Your task to perform on an android device: Empty the shopping cart on amazon.com. Search for usb-c to usb-b on amazon.com, select the first entry, and add it to the cart. Image 0: 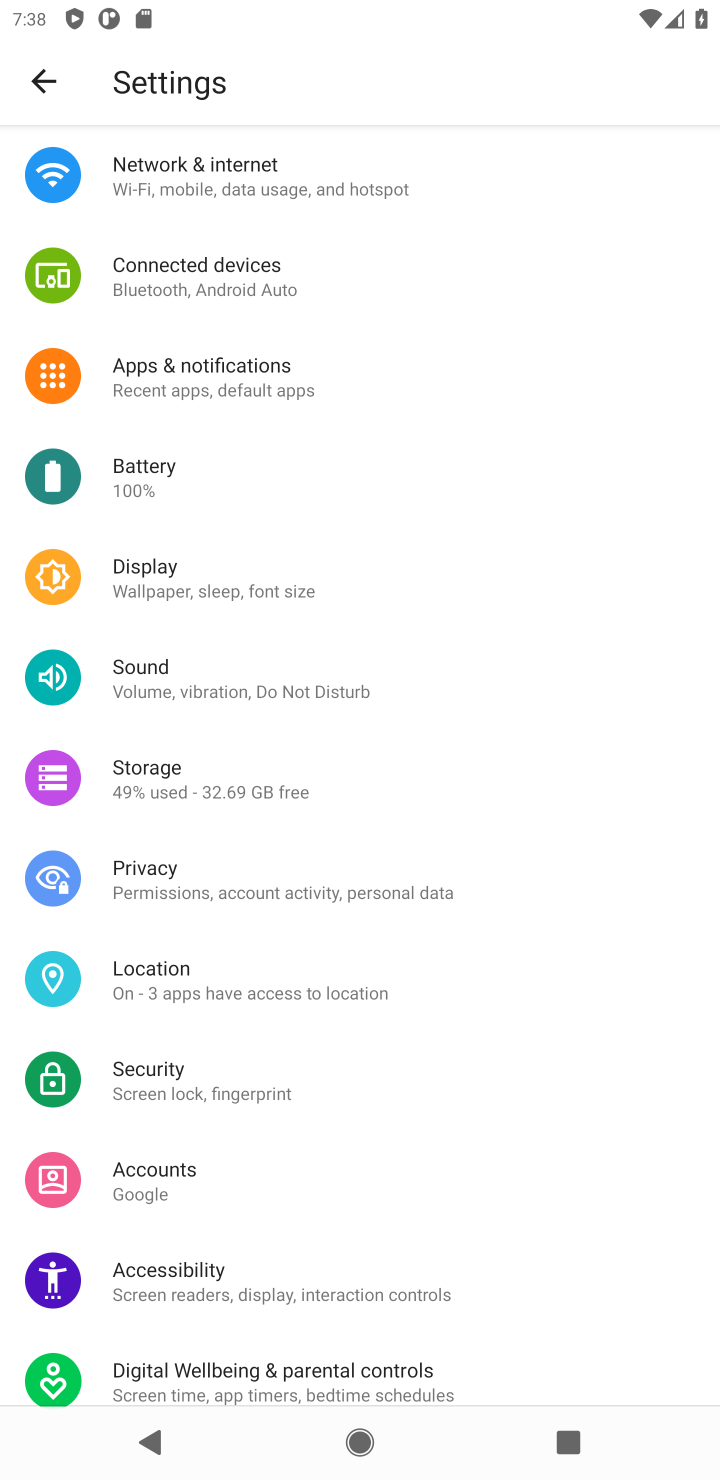
Step 0: press home button
Your task to perform on an android device: Empty the shopping cart on amazon.com. Search for usb-c to usb-b on amazon.com, select the first entry, and add it to the cart. Image 1: 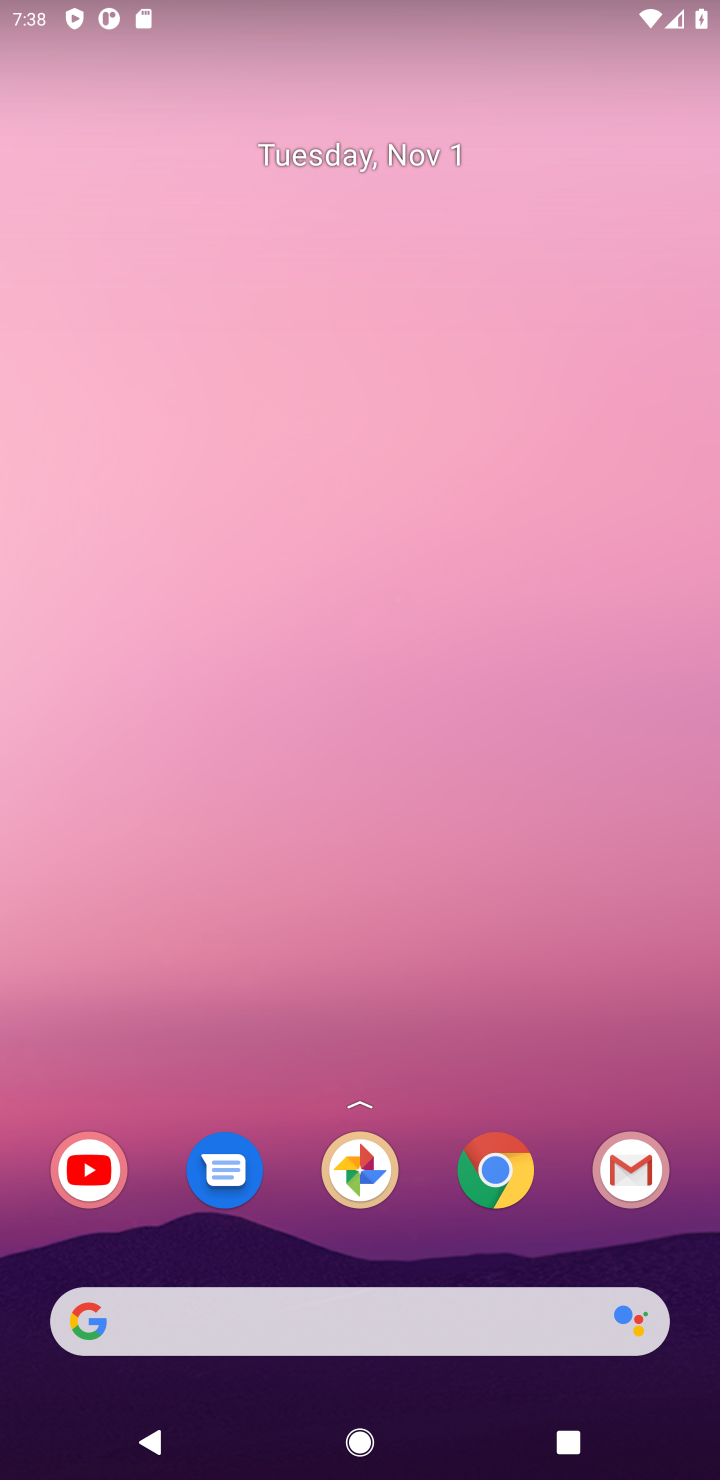
Step 1: click (511, 1171)
Your task to perform on an android device: Empty the shopping cart on amazon.com. Search for usb-c to usb-b on amazon.com, select the first entry, and add it to the cart. Image 2: 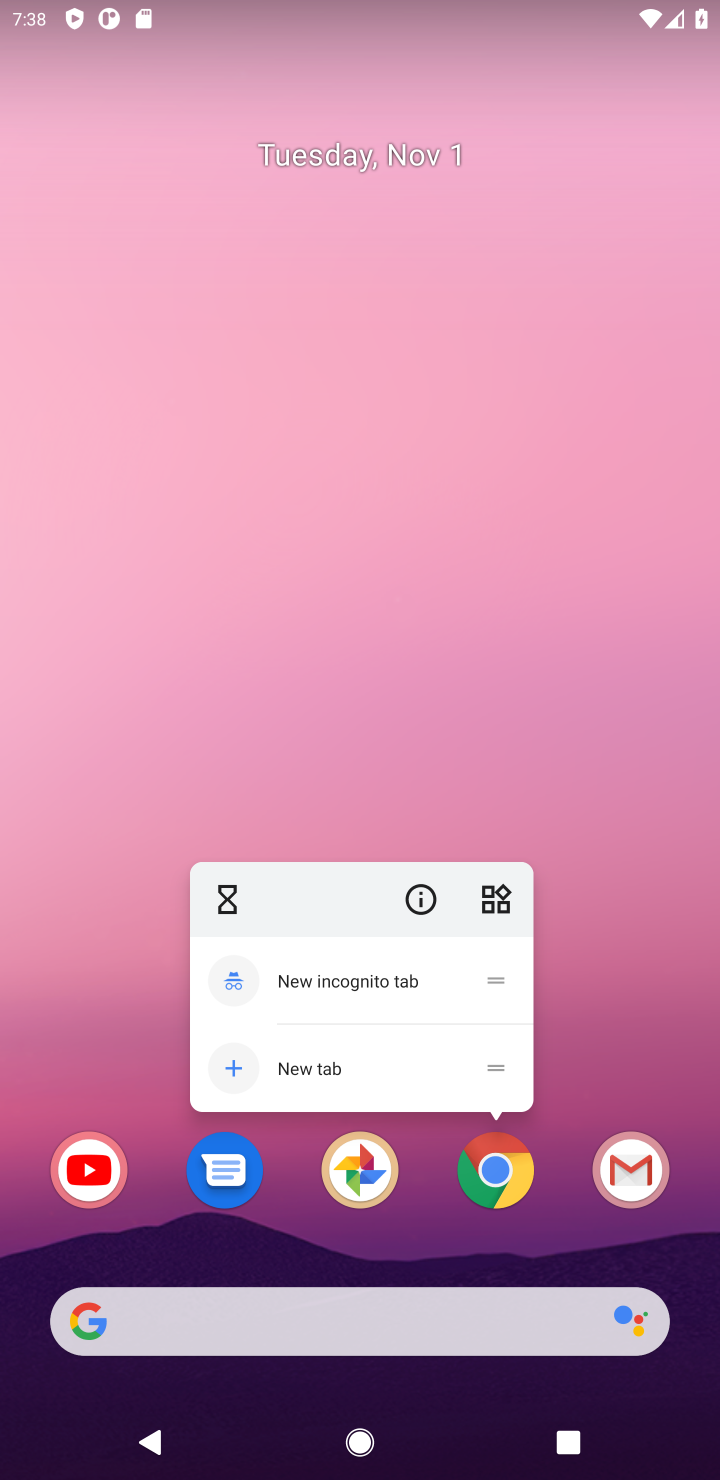
Step 2: click (515, 1180)
Your task to perform on an android device: Empty the shopping cart on amazon.com. Search for usb-c to usb-b on amazon.com, select the first entry, and add it to the cart. Image 3: 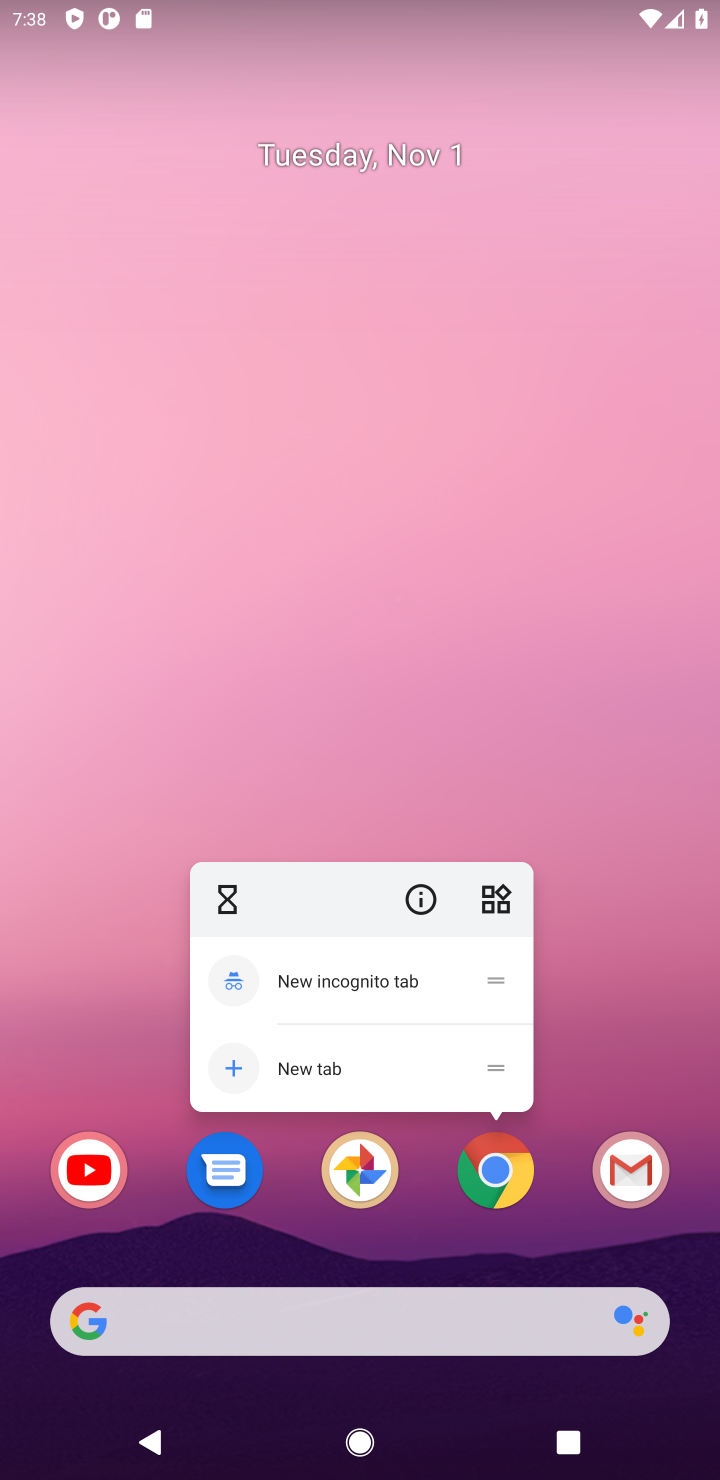
Step 3: click (504, 1206)
Your task to perform on an android device: Empty the shopping cart on amazon.com. Search for usb-c to usb-b on amazon.com, select the first entry, and add it to the cart. Image 4: 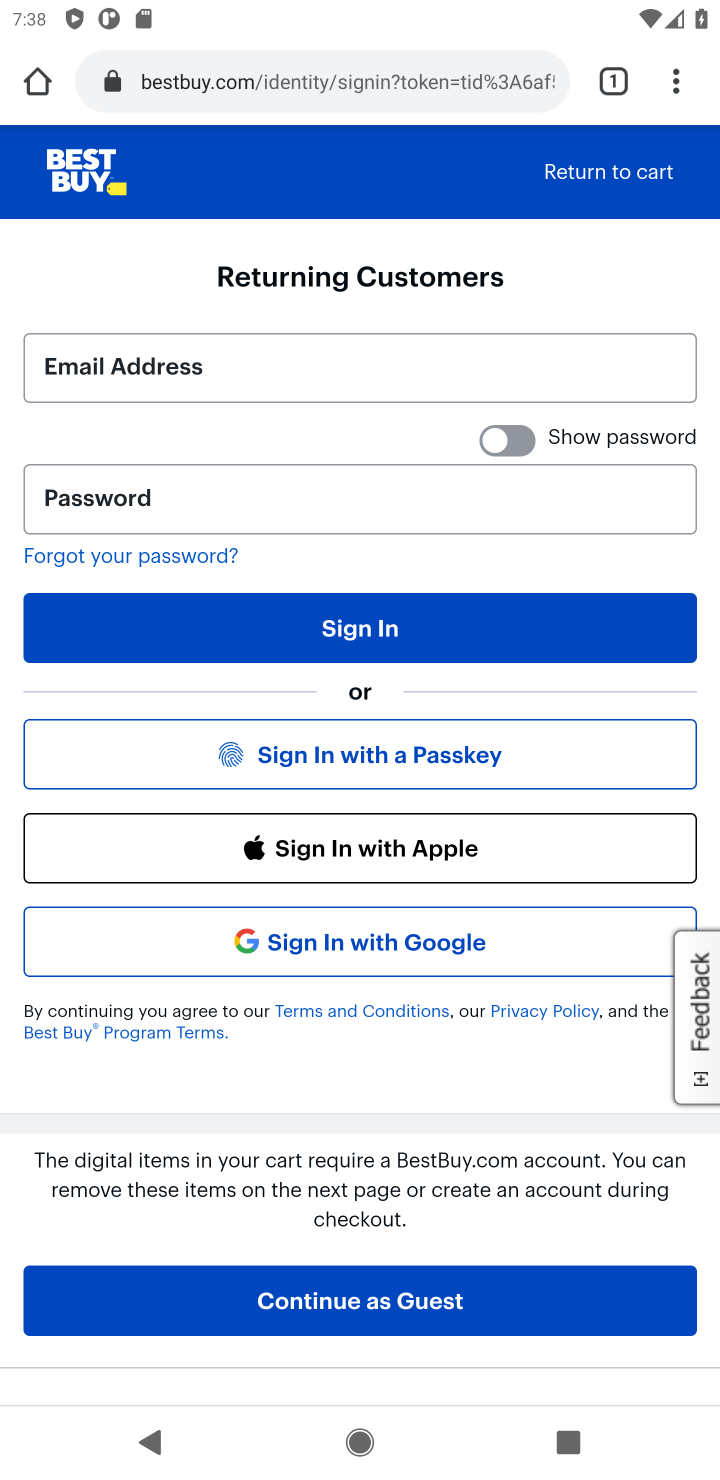
Step 4: click (317, 87)
Your task to perform on an android device: Empty the shopping cart on amazon.com. Search for usb-c to usb-b on amazon.com, select the first entry, and add it to the cart. Image 5: 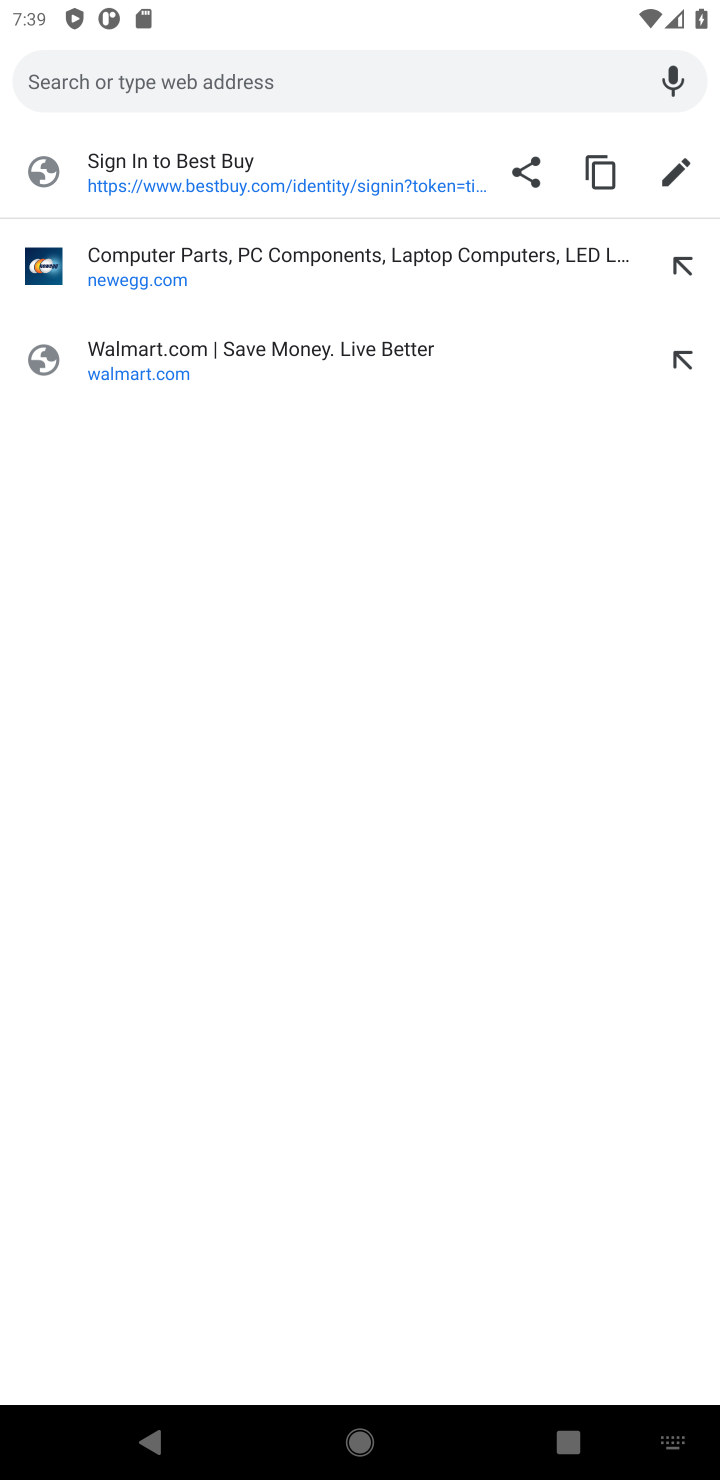
Step 5: type "amazon.com"
Your task to perform on an android device: Empty the shopping cart on amazon.com. Search for usb-c to usb-b on amazon.com, select the first entry, and add it to the cart. Image 6: 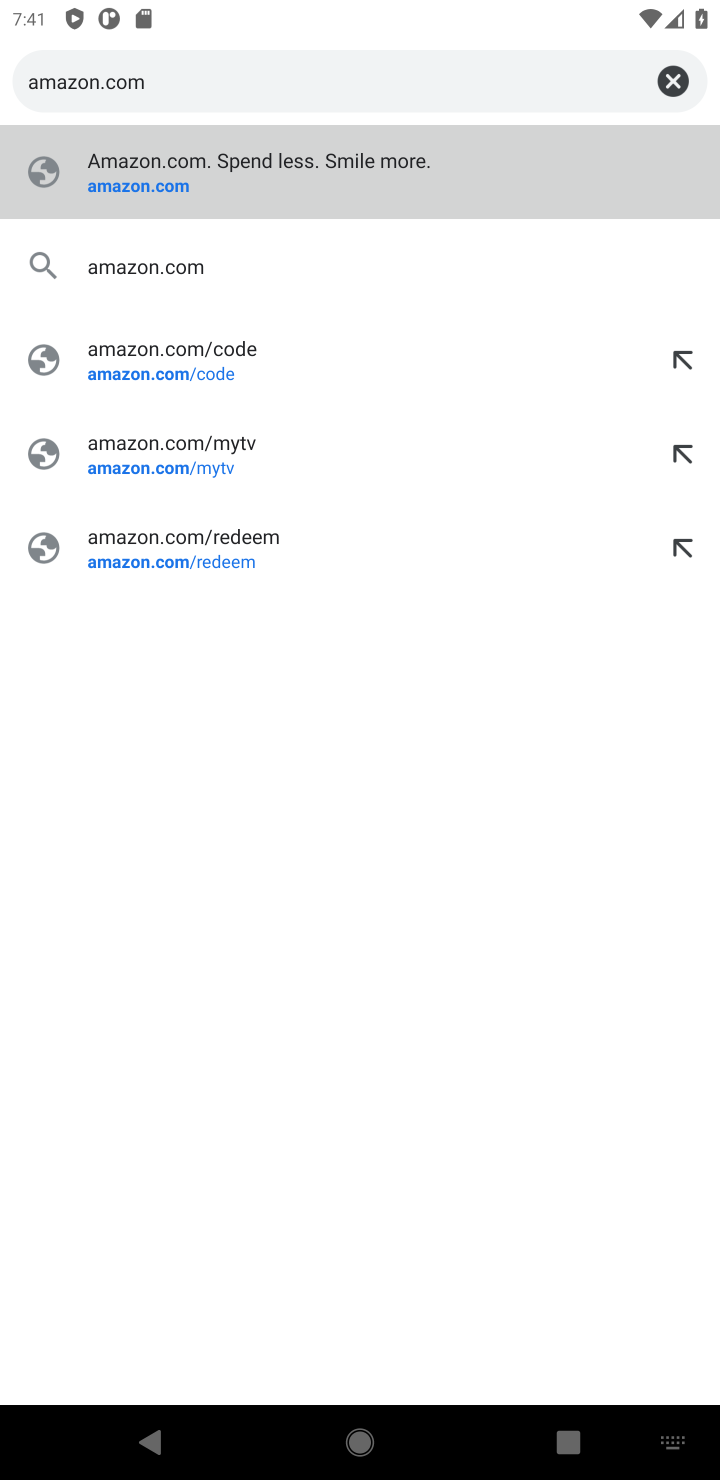
Step 6: press enter
Your task to perform on an android device: Empty the shopping cart on amazon.com. Search for usb-c to usb-b on amazon.com, select the first entry, and add it to the cart. Image 7: 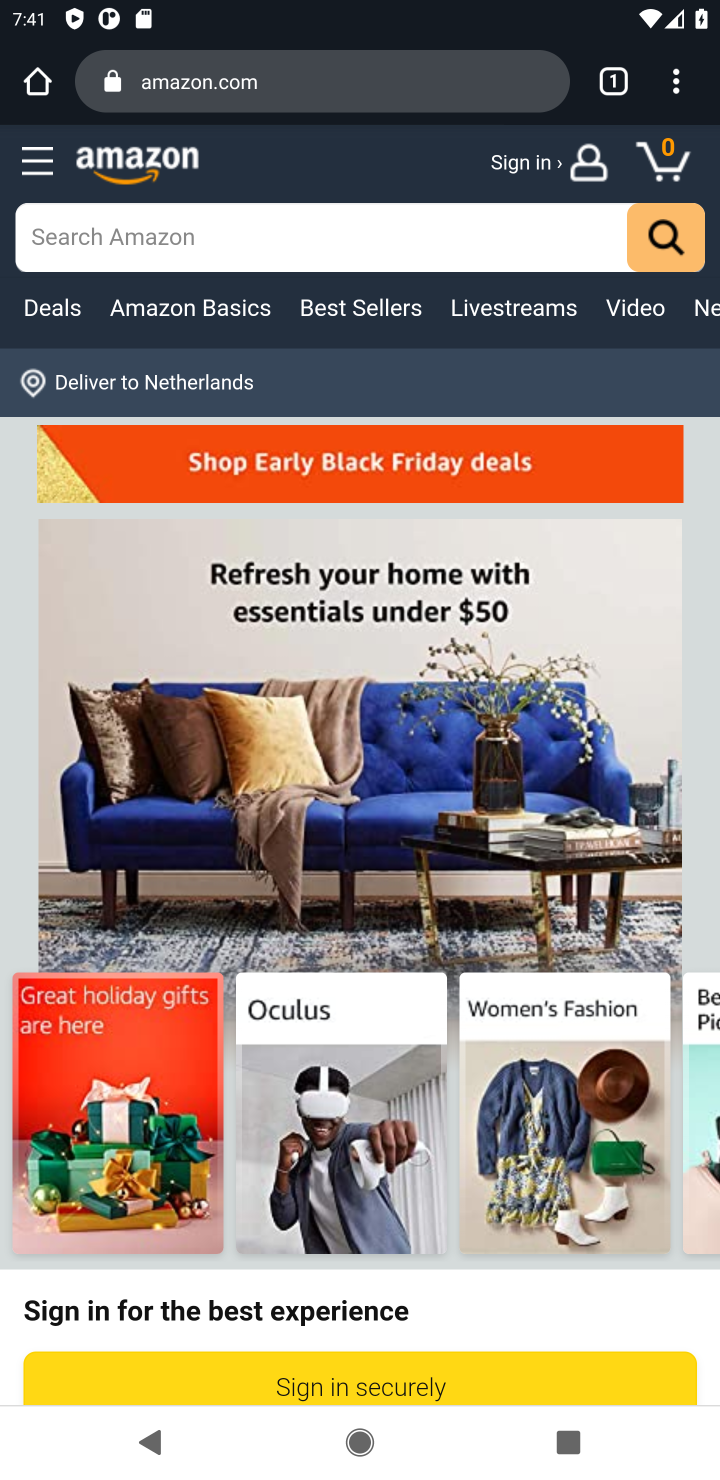
Step 7: click (668, 165)
Your task to perform on an android device: Empty the shopping cart on amazon.com. Search for usb-c to usb-b on amazon.com, select the first entry, and add it to the cart. Image 8: 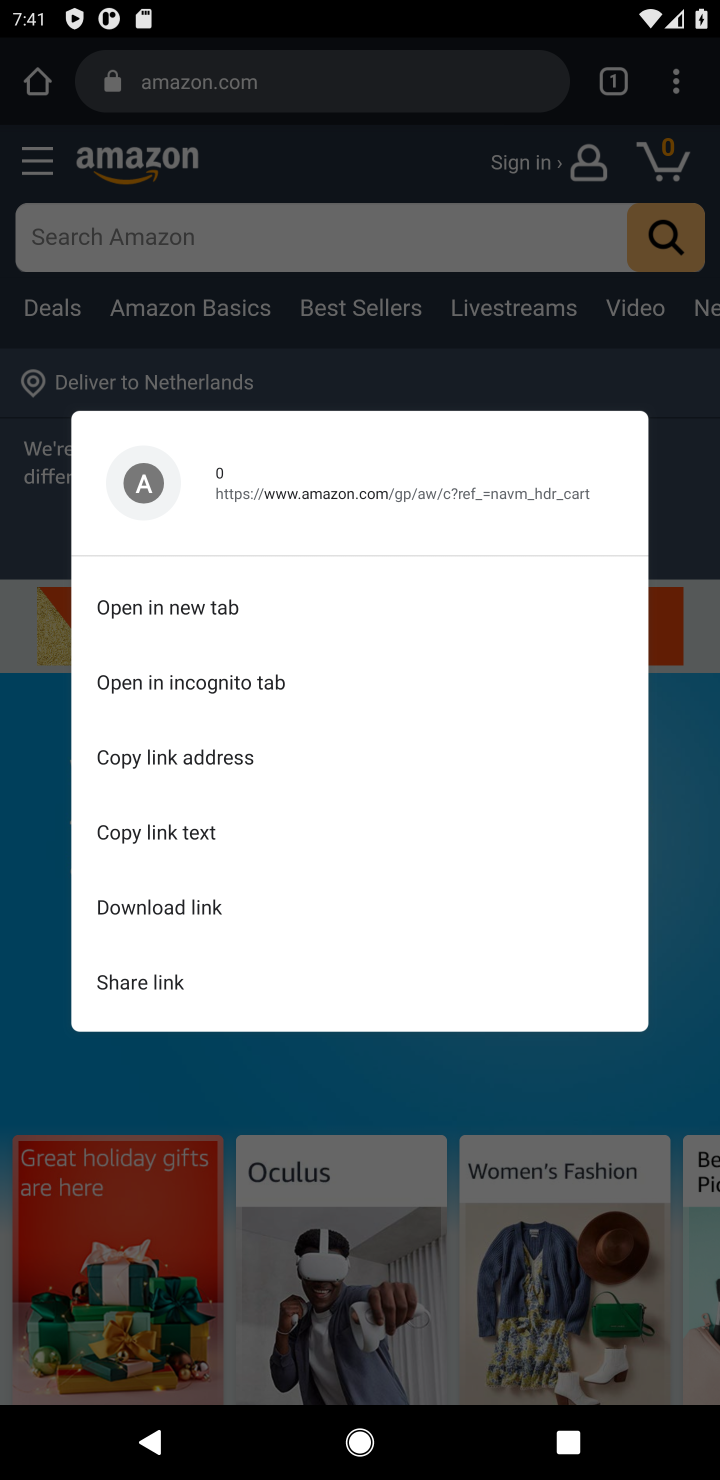
Step 8: click (476, 1080)
Your task to perform on an android device: Empty the shopping cart on amazon.com. Search for usb-c to usb-b on amazon.com, select the first entry, and add it to the cart. Image 9: 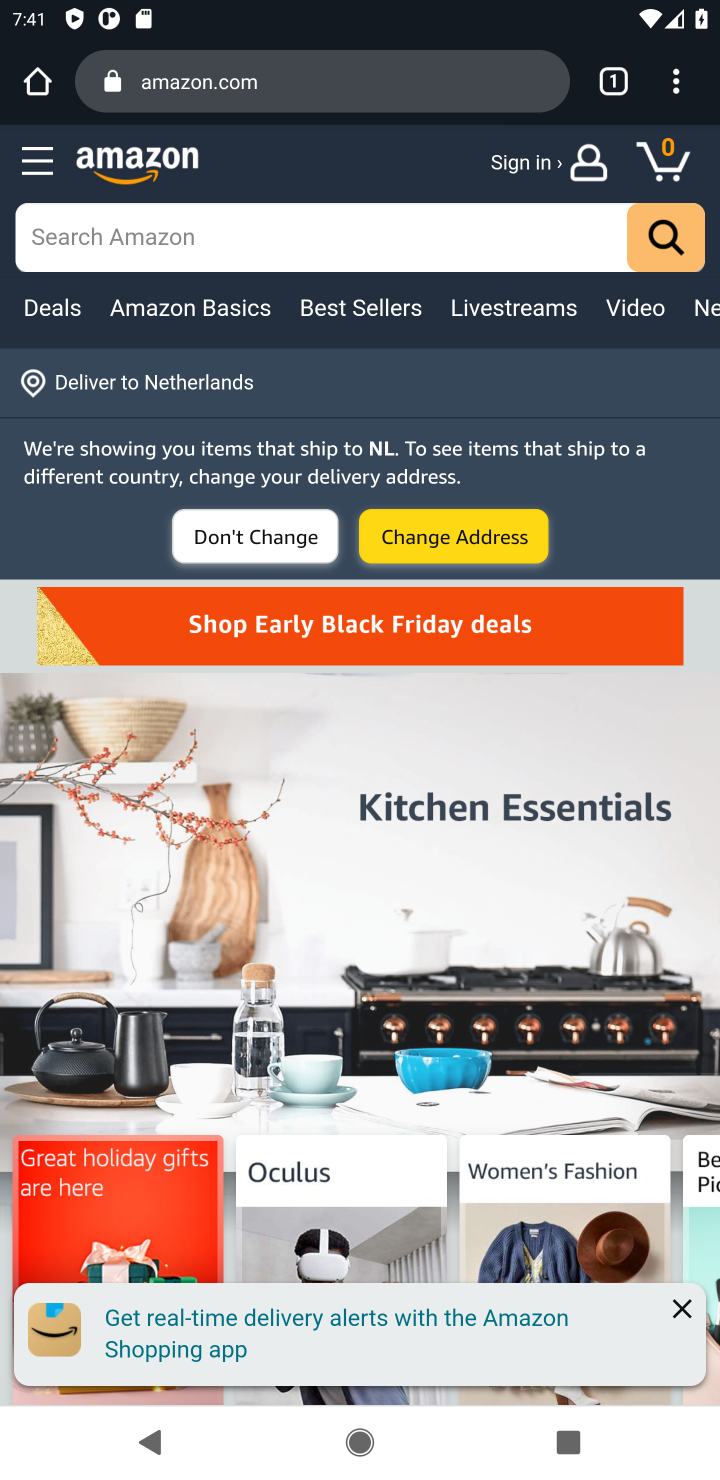
Step 9: click (667, 168)
Your task to perform on an android device: Empty the shopping cart on amazon.com. Search for usb-c to usb-b on amazon.com, select the first entry, and add it to the cart. Image 10: 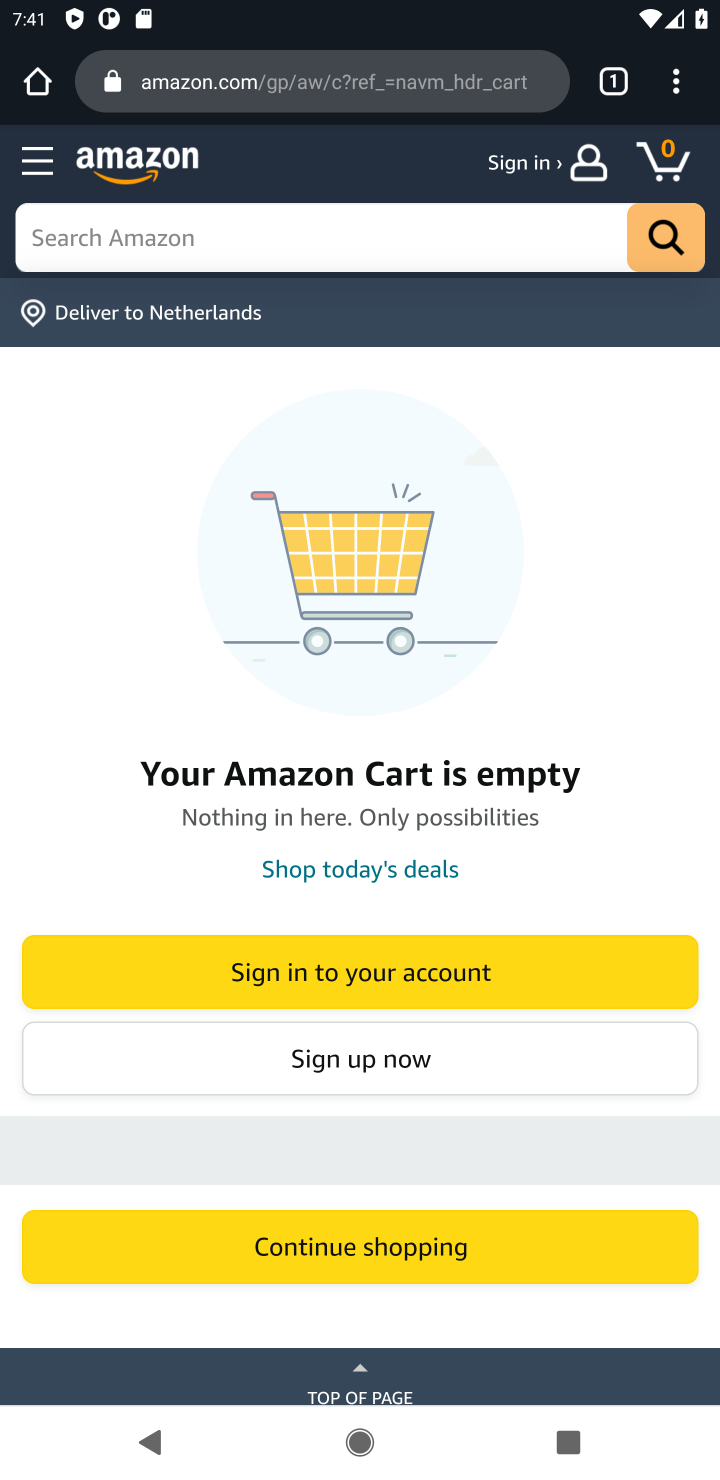
Step 10: click (448, 227)
Your task to perform on an android device: Empty the shopping cart on amazon.com. Search for usb-c to usb-b on amazon.com, select the first entry, and add it to the cart. Image 11: 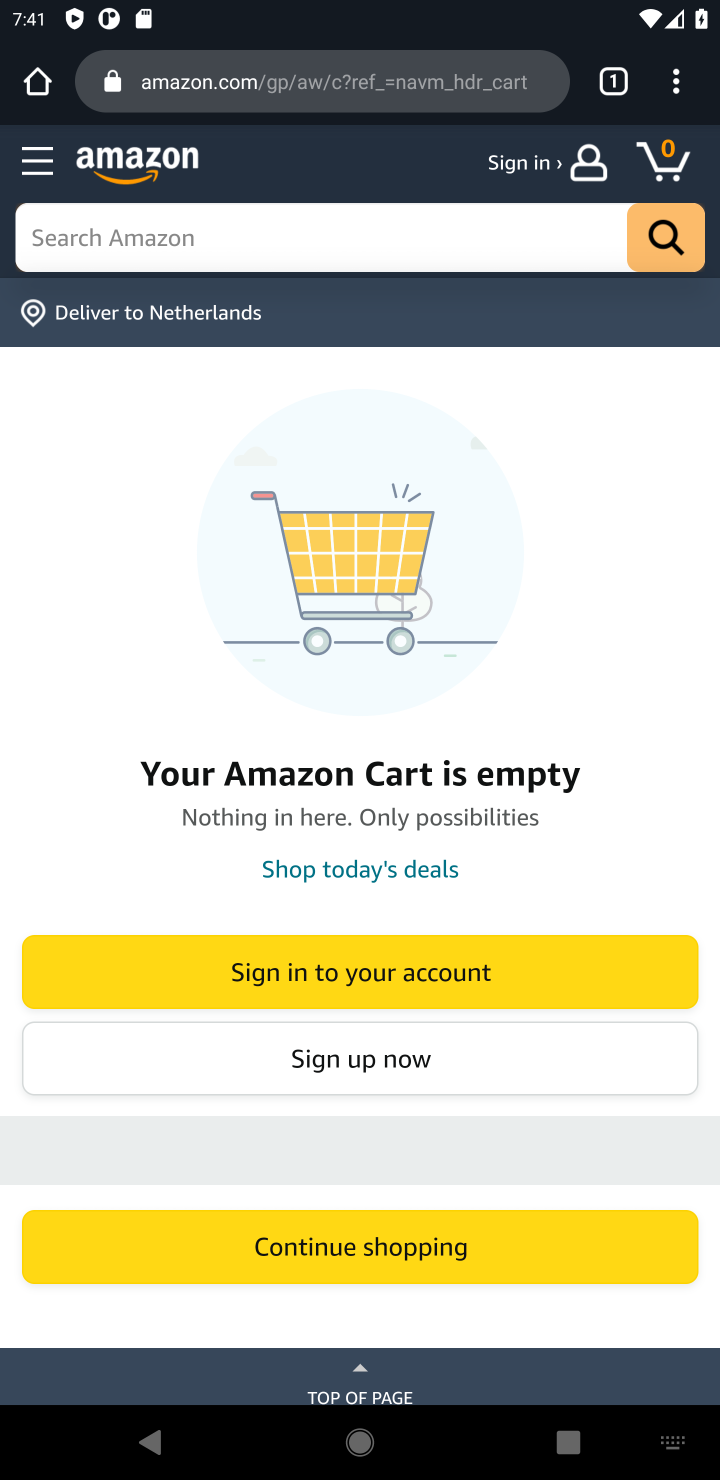
Step 11: type "usb-c to usb-b"
Your task to perform on an android device: Empty the shopping cart on amazon.com. Search for usb-c to usb-b on amazon.com, select the first entry, and add it to the cart. Image 12: 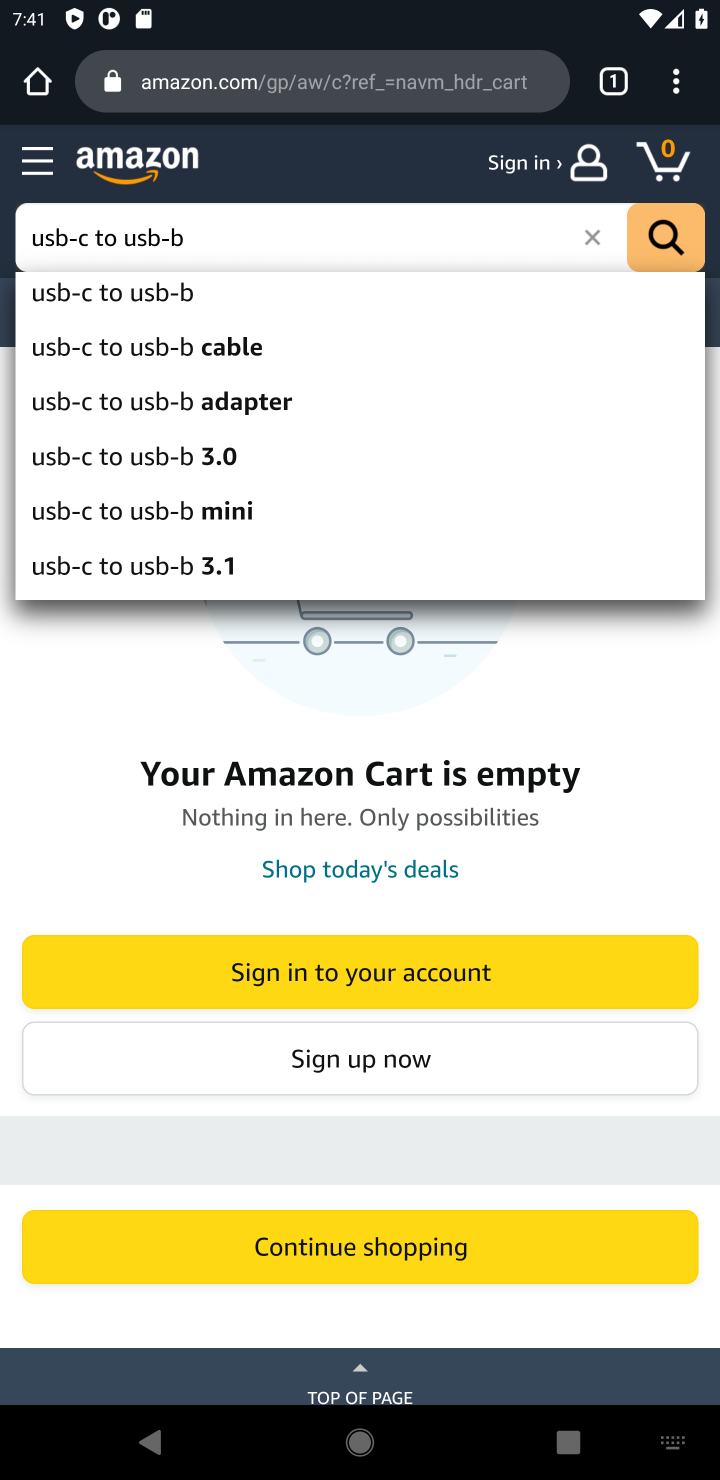
Step 12: press enter
Your task to perform on an android device: Empty the shopping cart on amazon.com. Search for usb-c to usb-b on amazon.com, select the first entry, and add it to the cart. Image 13: 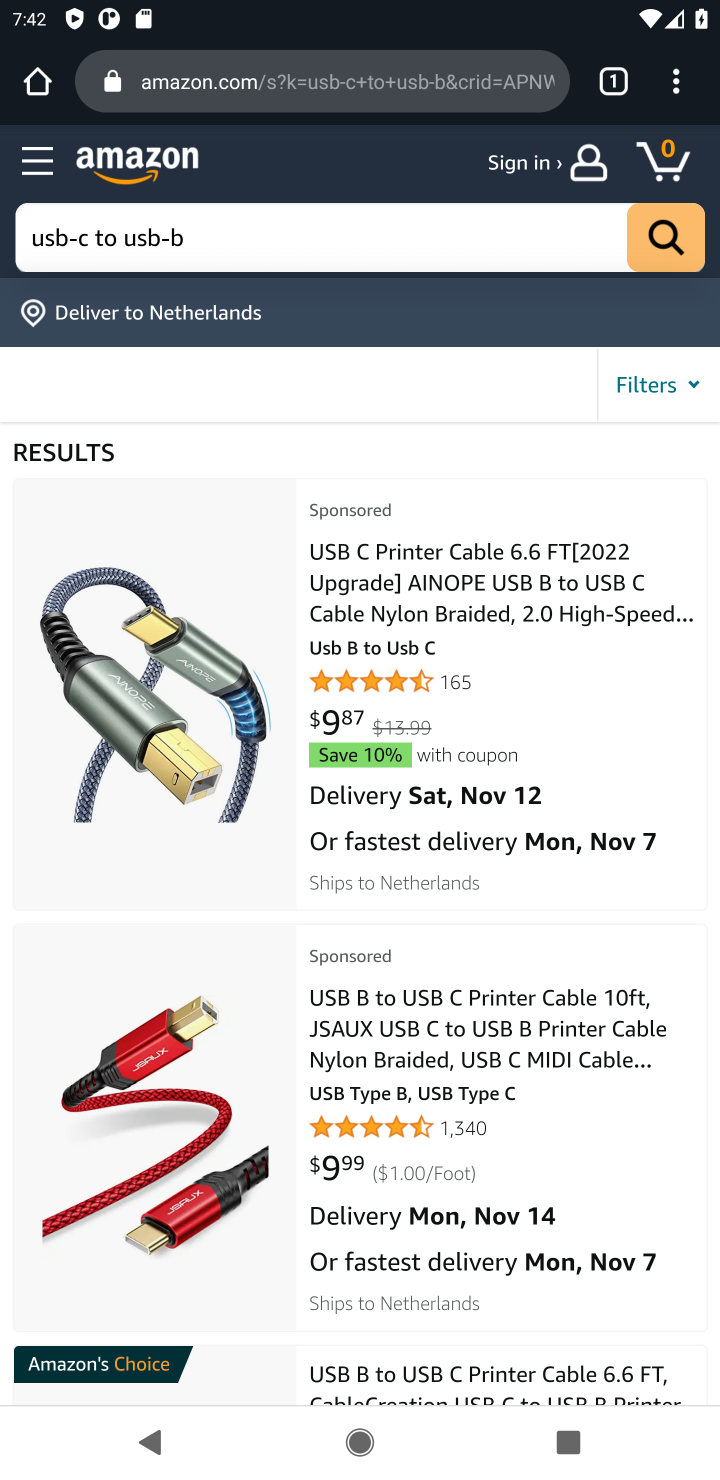
Step 13: click (476, 995)
Your task to perform on an android device: Empty the shopping cart on amazon.com. Search for usb-c to usb-b on amazon.com, select the first entry, and add it to the cart. Image 14: 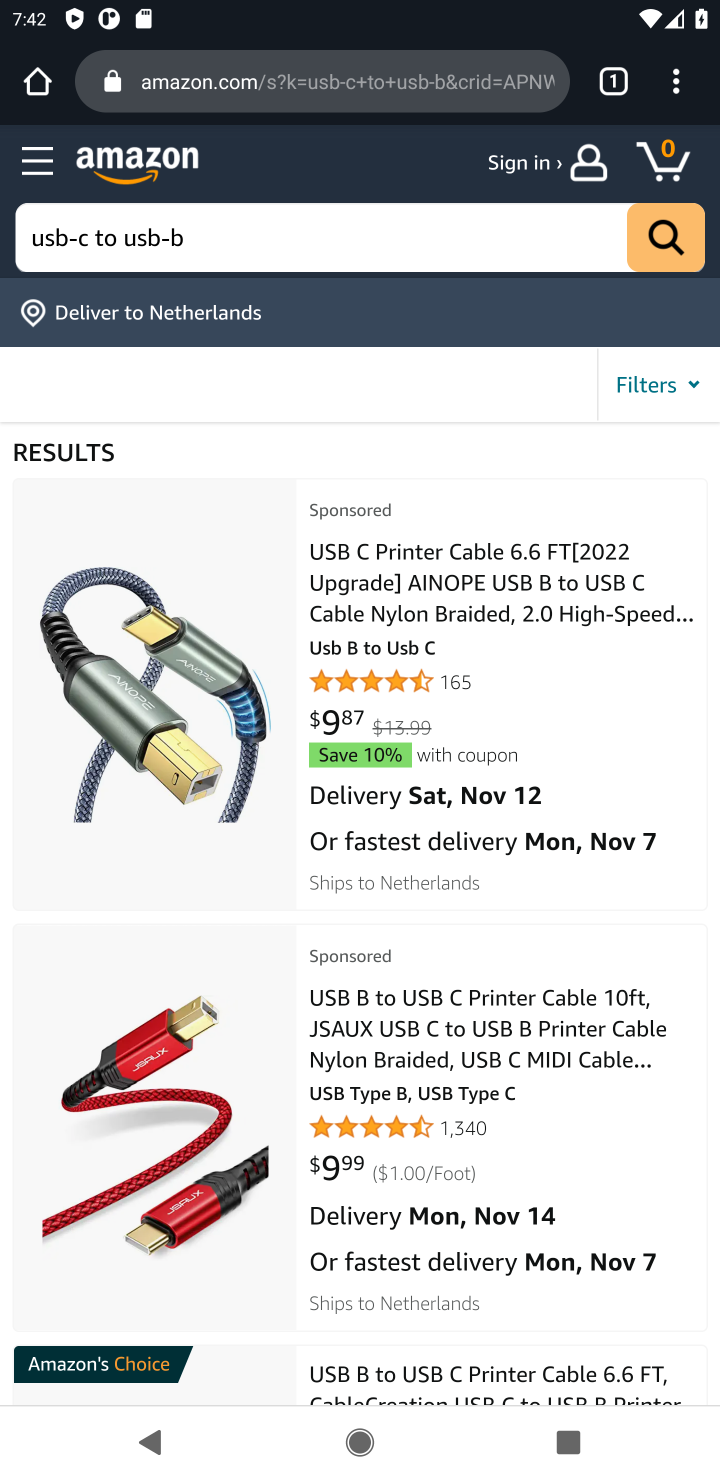
Step 14: click (492, 603)
Your task to perform on an android device: Empty the shopping cart on amazon.com. Search for usb-c to usb-b on amazon.com, select the first entry, and add it to the cart. Image 15: 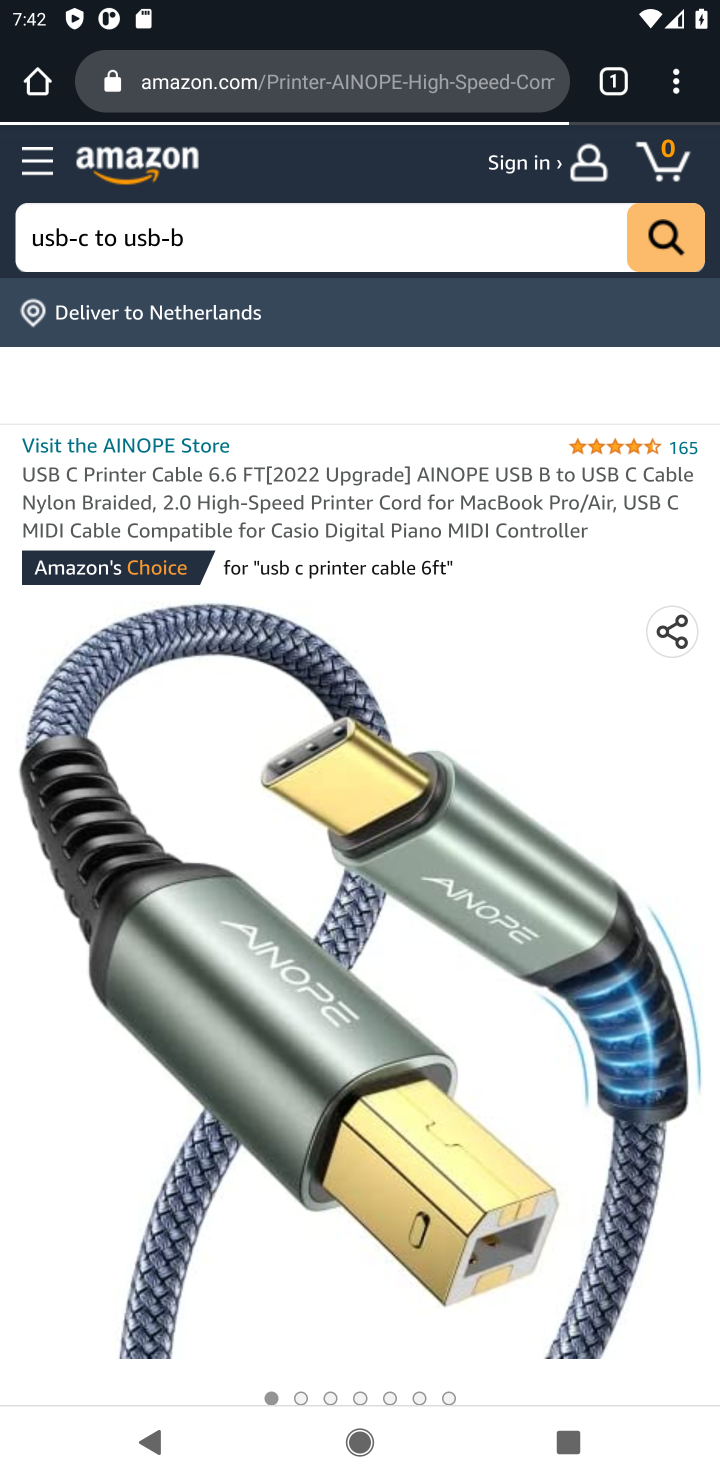
Step 15: drag from (504, 1083) to (400, 437)
Your task to perform on an android device: Empty the shopping cart on amazon.com. Search for usb-c to usb-b on amazon.com, select the first entry, and add it to the cart. Image 16: 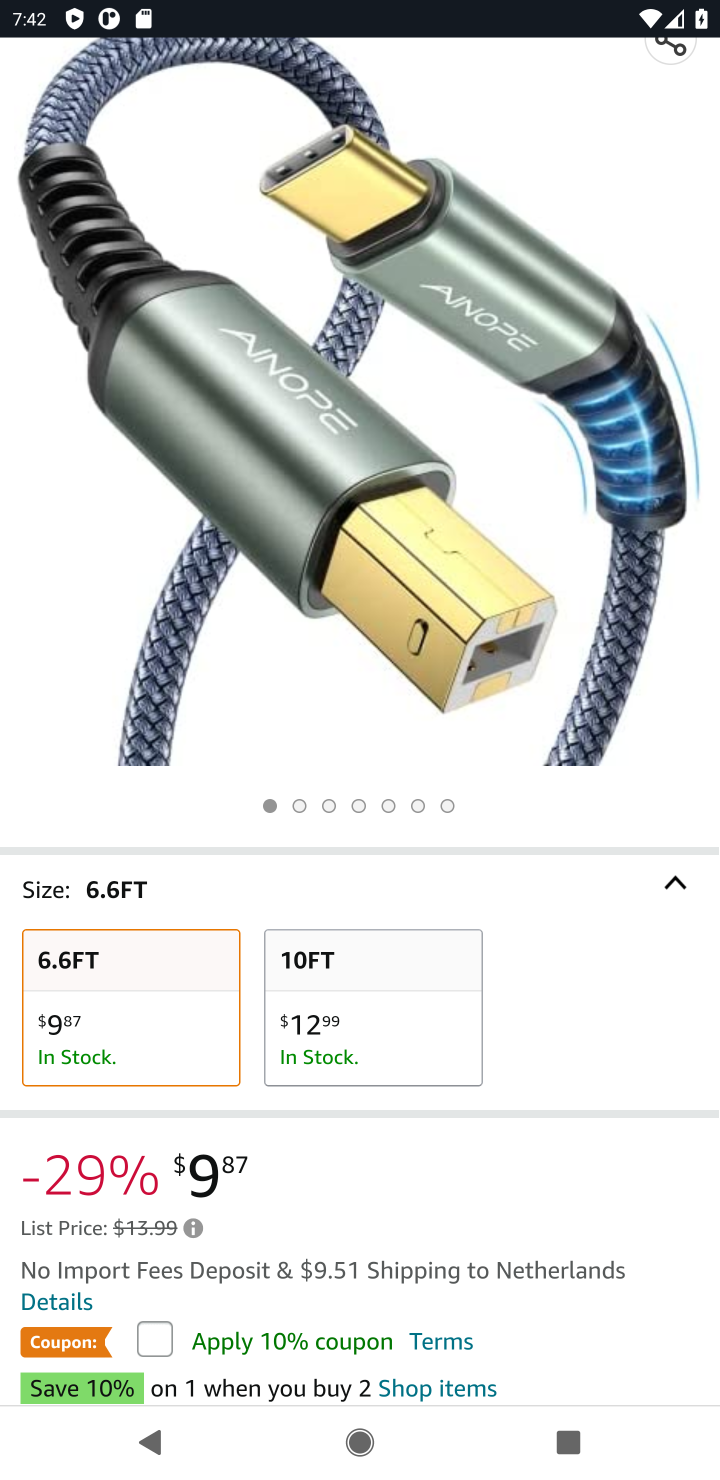
Step 16: drag from (429, 1132) to (405, 486)
Your task to perform on an android device: Empty the shopping cart on amazon.com. Search for usb-c to usb-b on amazon.com, select the first entry, and add it to the cart. Image 17: 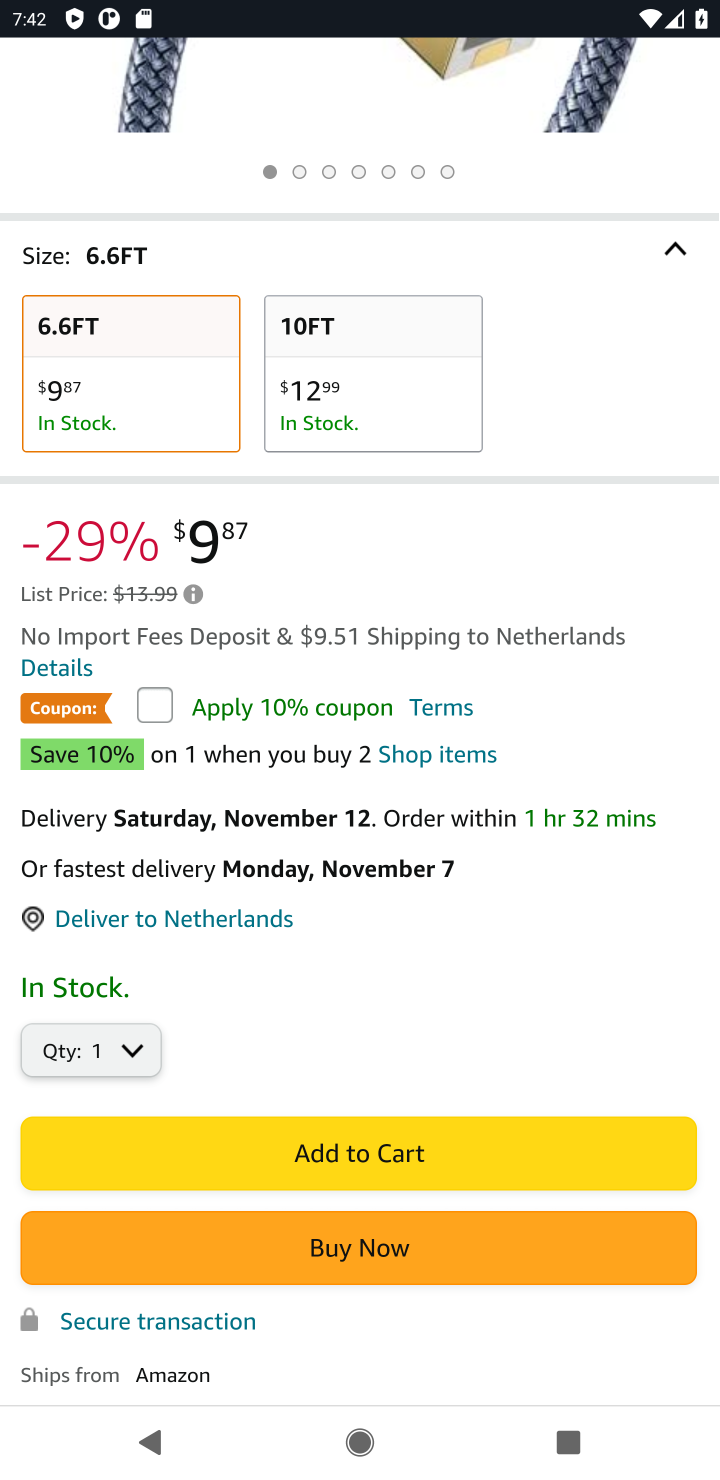
Step 17: click (382, 1163)
Your task to perform on an android device: Empty the shopping cart on amazon.com. Search for usb-c to usb-b on amazon.com, select the first entry, and add it to the cart. Image 18: 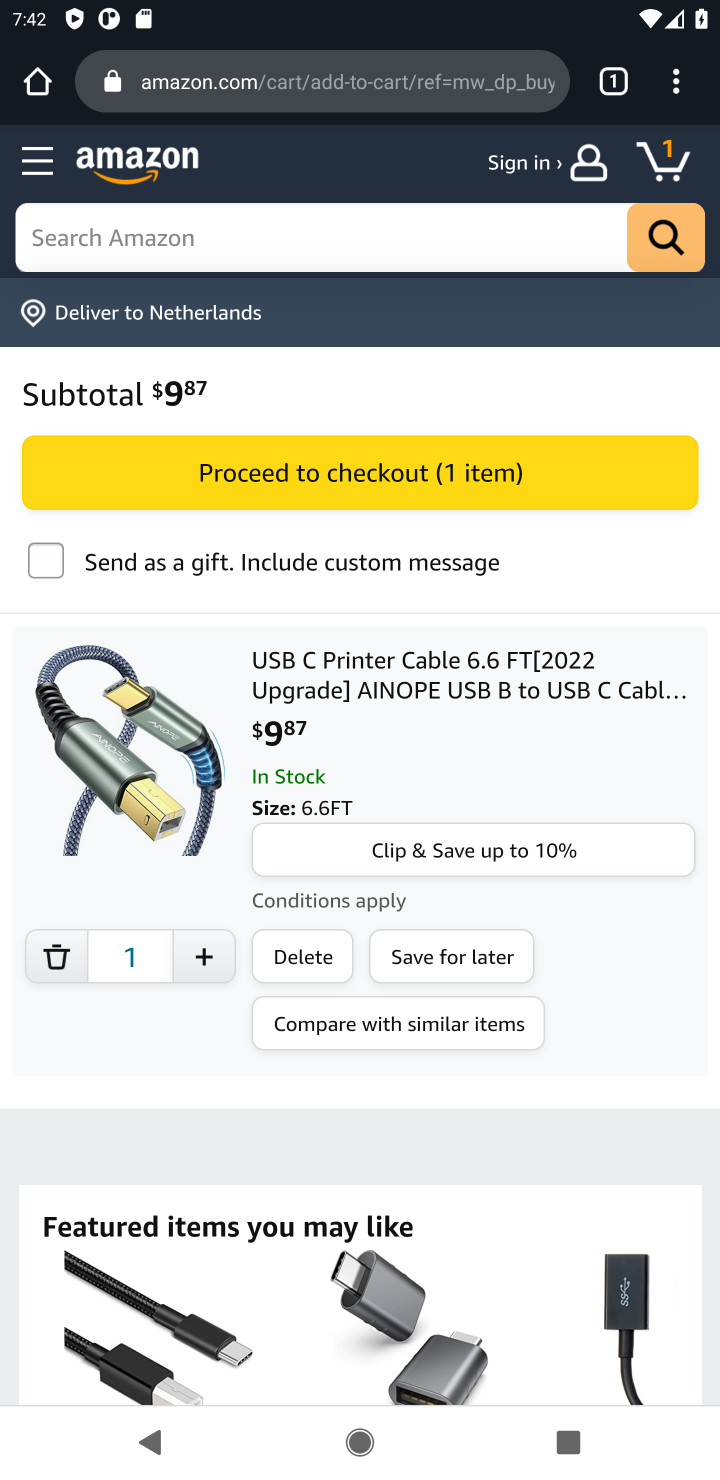
Step 18: task complete